Your task to perform on an android device: turn off data saver in the chrome app Image 0: 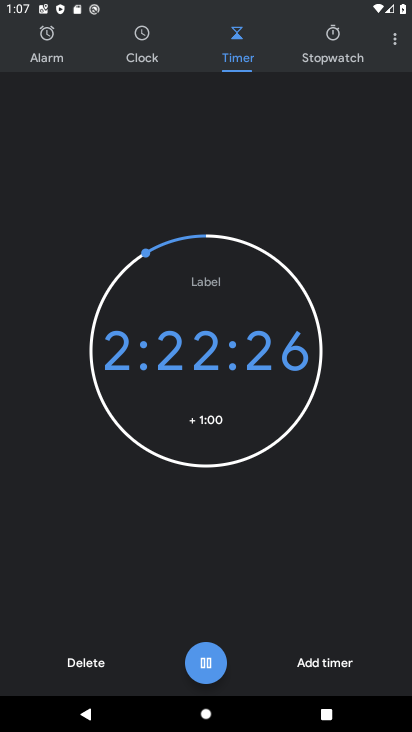
Step 0: press back button
Your task to perform on an android device: turn off data saver in the chrome app Image 1: 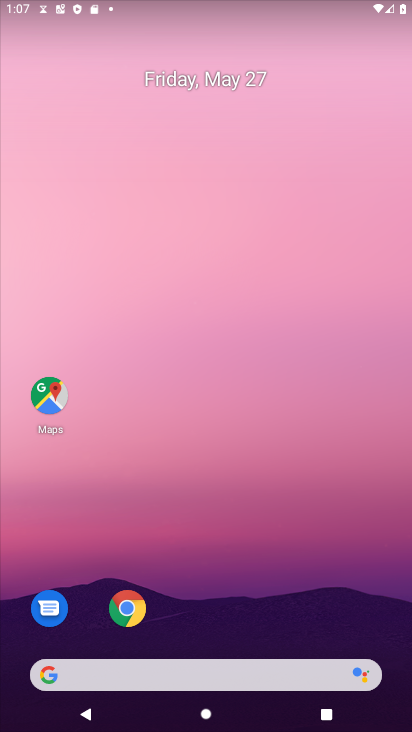
Step 1: click (123, 612)
Your task to perform on an android device: turn off data saver in the chrome app Image 2: 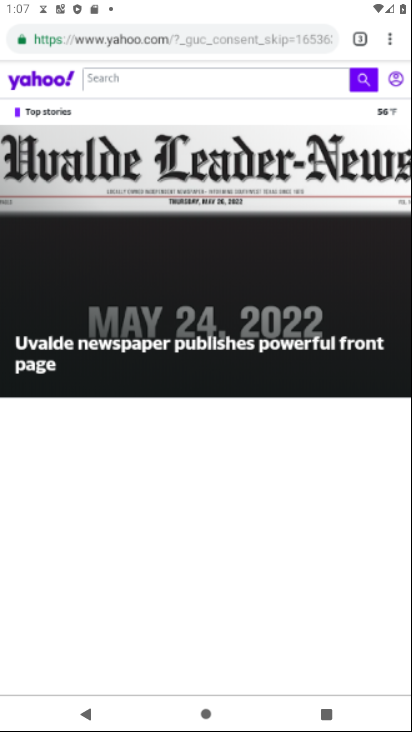
Step 2: click (386, 35)
Your task to perform on an android device: turn off data saver in the chrome app Image 3: 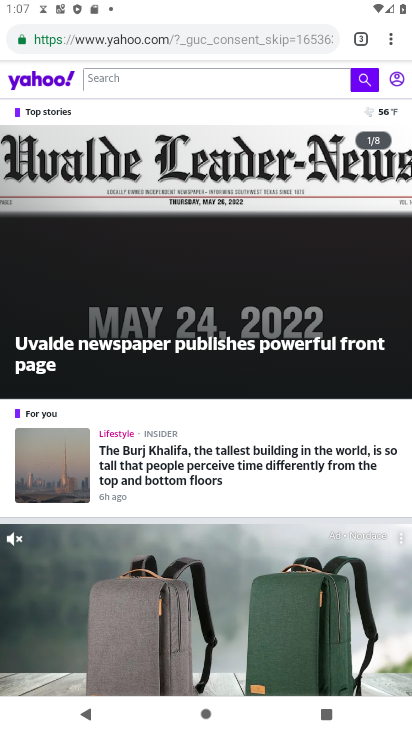
Step 3: drag from (387, 38) to (274, 470)
Your task to perform on an android device: turn off data saver in the chrome app Image 4: 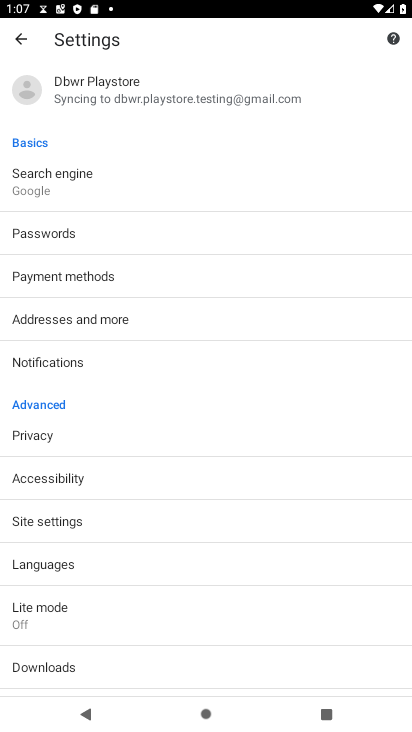
Step 4: click (44, 613)
Your task to perform on an android device: turn off data saver in the chrome app Image 5: 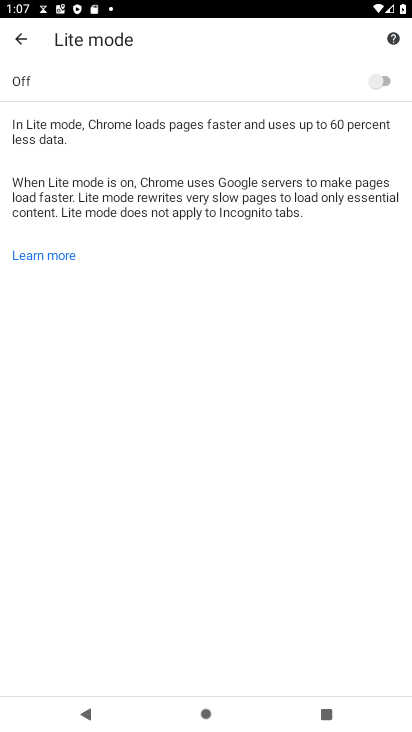
Step 5: task complete